Your task to perform on an android device: change alarm snooze length Image 0: 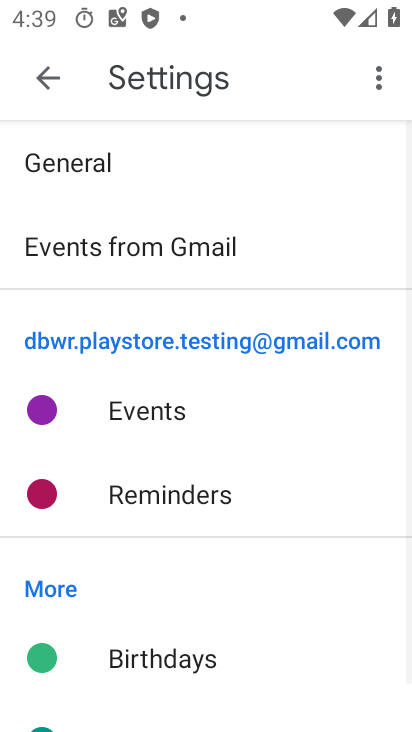
Step 0: press home button
Your task to perform on an android device: change alarm snooze length Image 1: 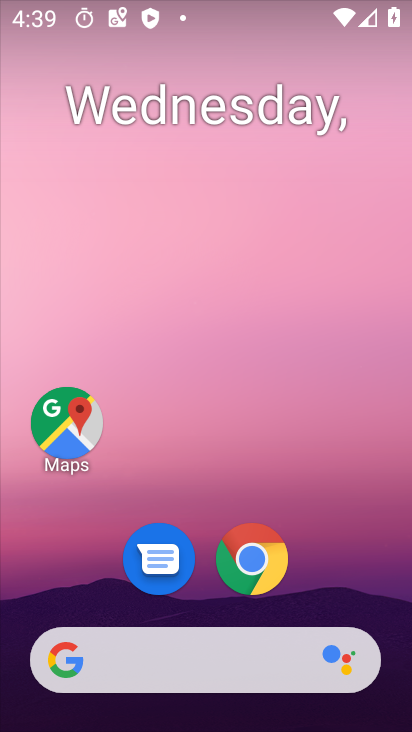
Step 1: drag from (333, 542) to (251, 50)
Your task to perform on an android device: change alarm snooze length Image 2: 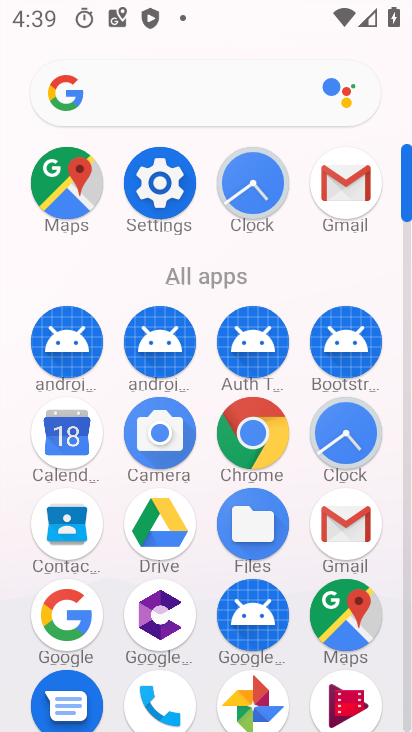
Step 2: click (259, 191)
Your task to perform on an android device: change alarm snooze length Image 3: 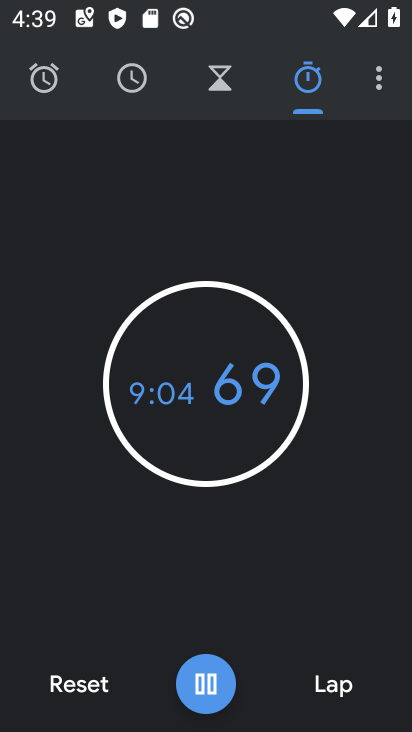
Step 3: click (371, 78)
Your task to perform on an android device: change alarm snooze length Image 4: 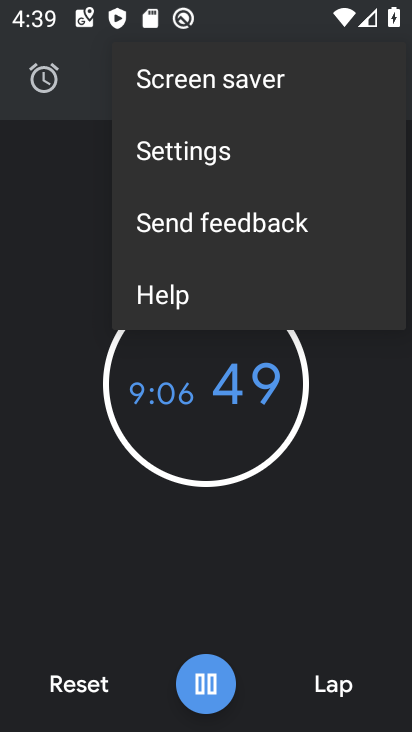
Step 4: click (231, 160)
Your task to perform on an android device: change alarm snooze length Image 5: 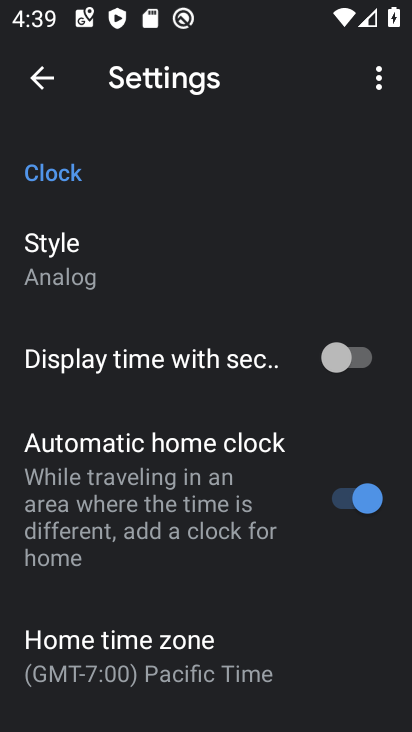
Step 5: drag from (245, 458) to (233, 110)
Your task to perform on an android device: change alarm snooze length Image 6: 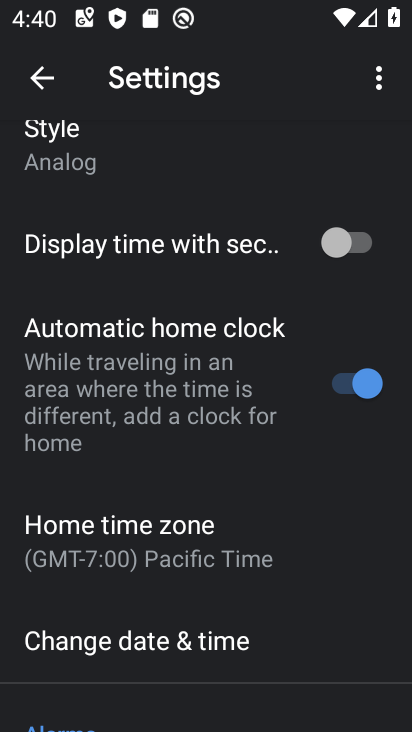
Step 6: drag from (207, 513) to (228, 131)
Your task to perform on an android device: change alarm snooze length Image 7: 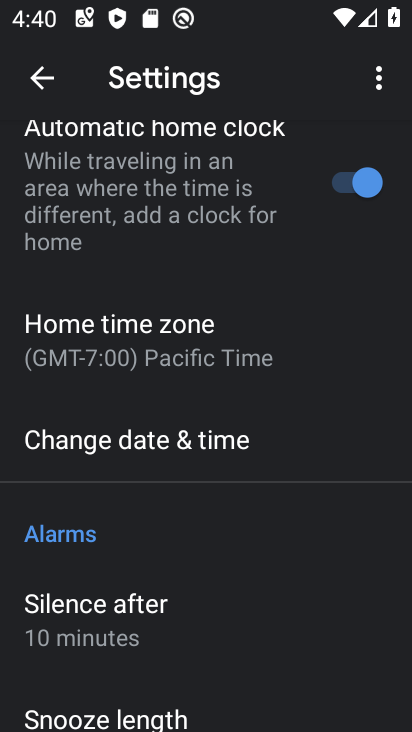
Step 7: click (200, 704)
Your task to perform on an android device: change alarm snooze length Image 8: 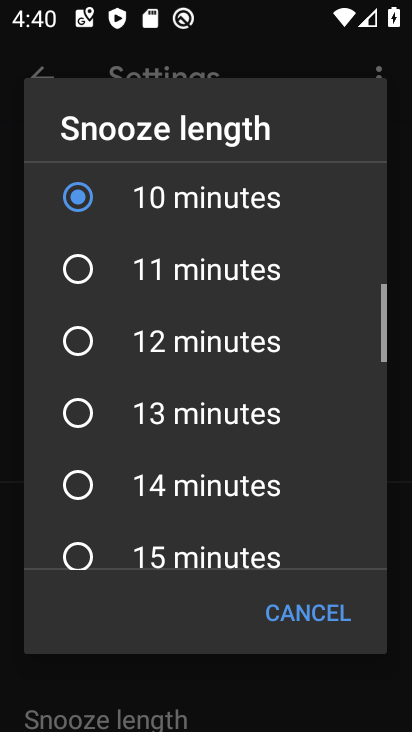
Step 8: click (194, 274)
Your task to perform on an android device: change alarm snooze length Image 9: 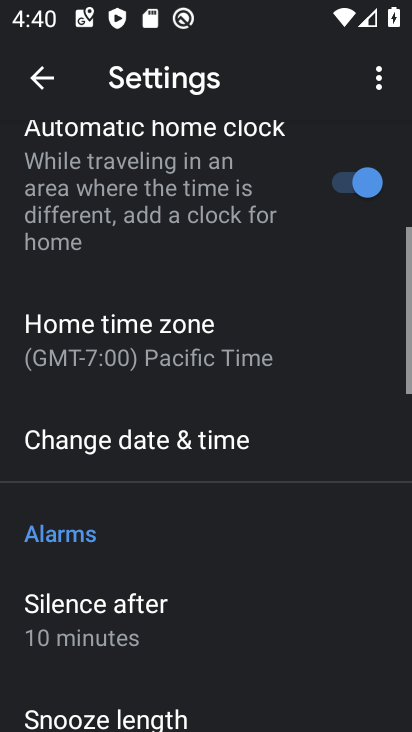
Step 9: task complete